Your task to perform on an android device: Open battery settings Image 0: 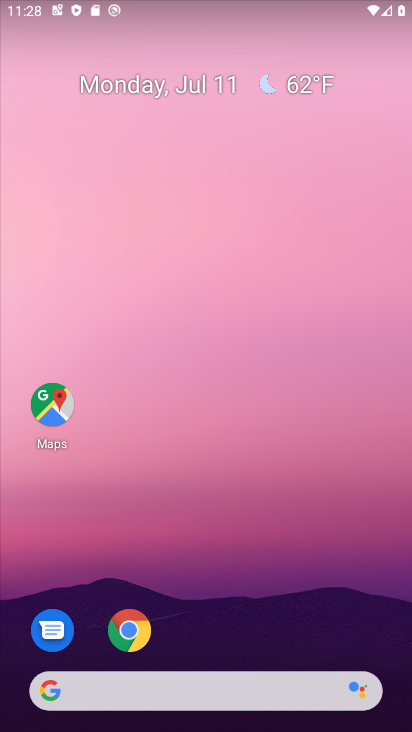
Step 0: drag from (278, 683) to (269, 20)
Your task to perform on an android device: Open battery settings Image 1: 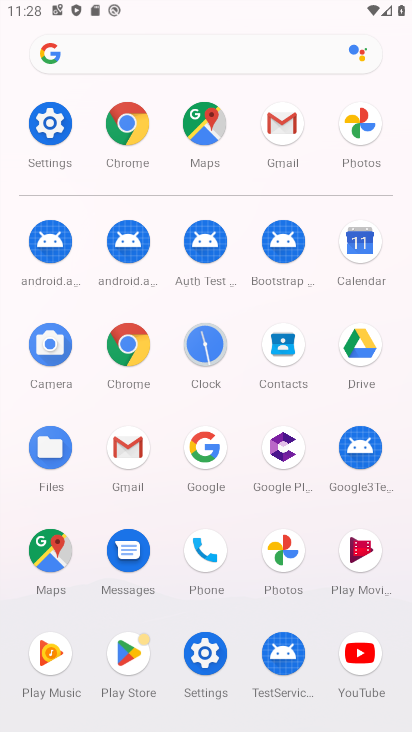
Step 1: click (38, 115)
Your task to perform on an android device: Open battery settings Image 2: 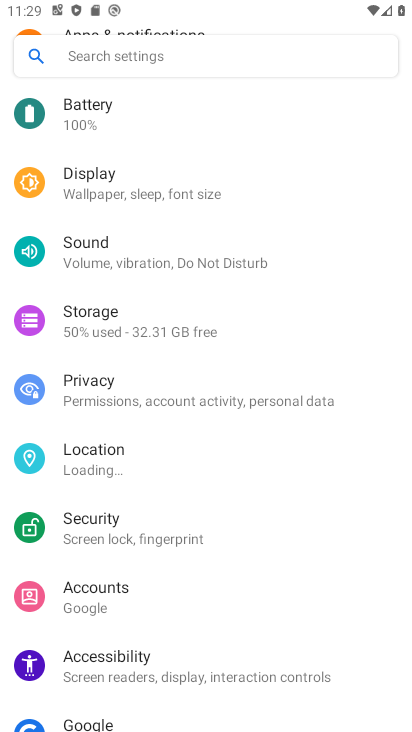
Step 2: click (91, 111)
Your task to perform on an android device: Open battery settings Image 3: 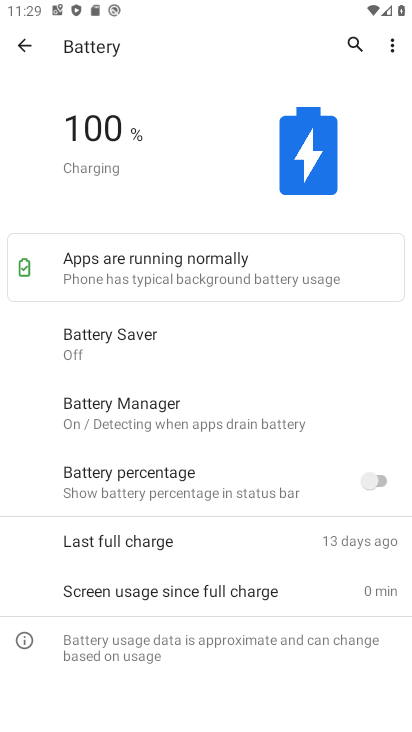
Step 3: task complete